Your task to perform on an android device: Go to sound settings Image 0: 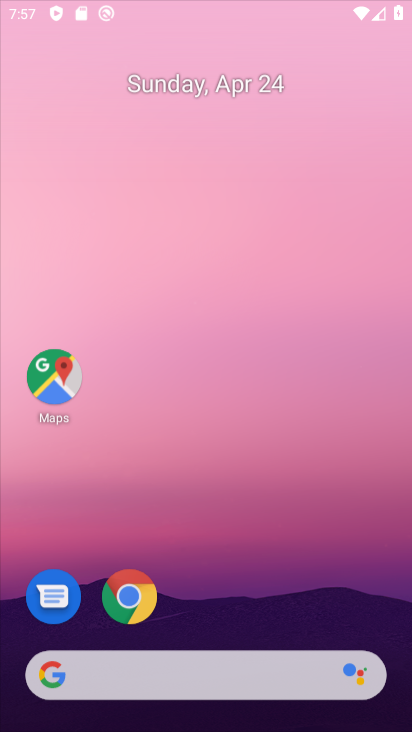
Step 0: drag from (225, 627) to (318, 22)
Your task to perform on an android device: Go to sound settings Image 1: 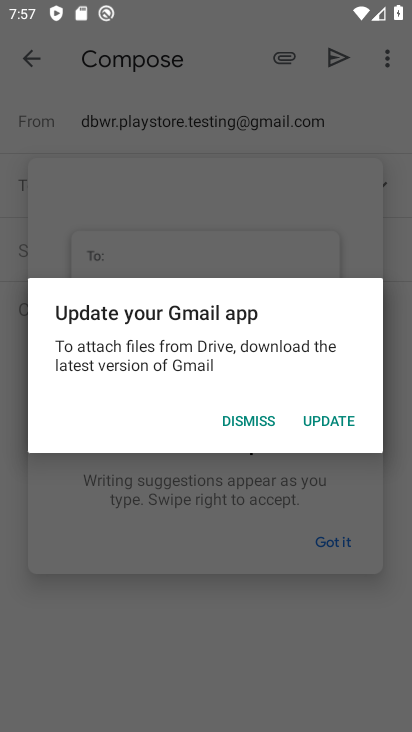
Step 1: press home button
Your task to perform on an android device: Go to sound settings Image 2: 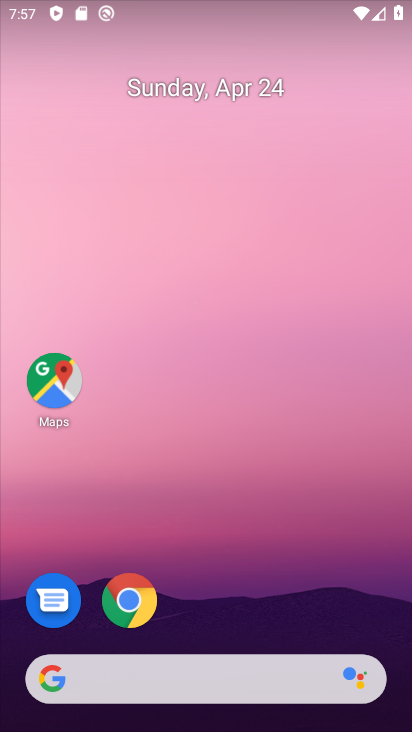
Step 2: drag from (260, 593) to (278, 62)
Your task to perform on an android device: Go to sound settings Image 3: 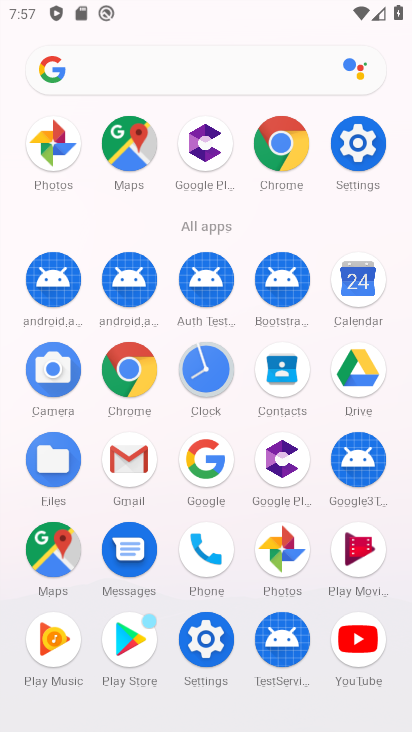
Step 3: click (199, 650)
Your task to perform on an android device: Go to sound settings Image 4: 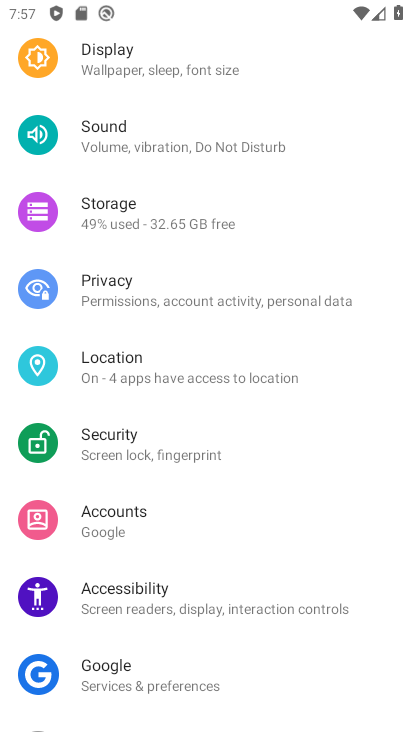
Step 4: click (196, 127)
Your task to perform on an android device: Go to sound settings Image 5: 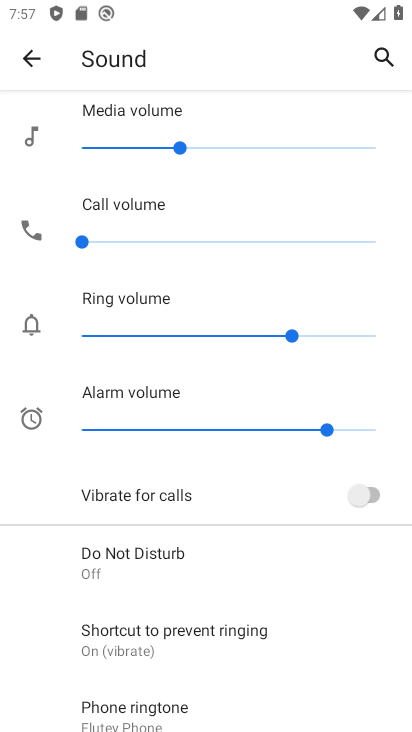
Step 5: task complete